Your task to perform on an android device: Open maps Image 0: 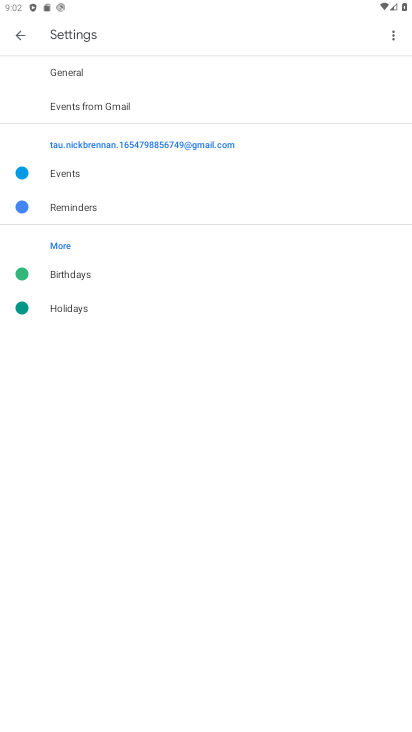
Step 0: press home button
Your task to perform on an android device: Open maps Image 1: 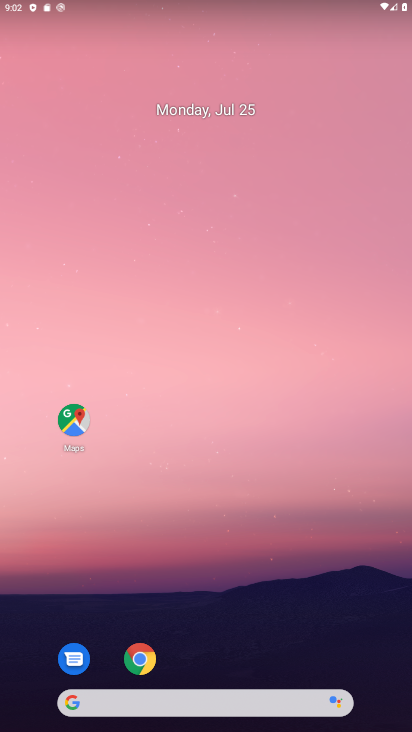
Step 1: click (74, 414)
Your task to perform on an android device: Open maps Image 2: 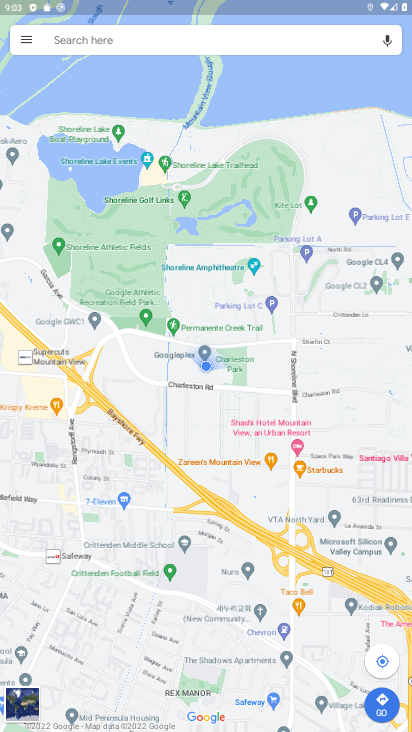
Step 2: task complete